Your task to perform on an android device: Go to display settings Image 0: 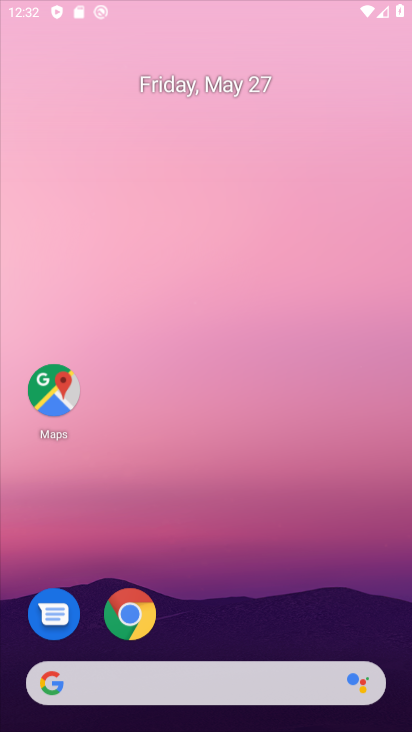
Step 0: press home button
Your task to perform on an android device: Go to display settings Image 1: 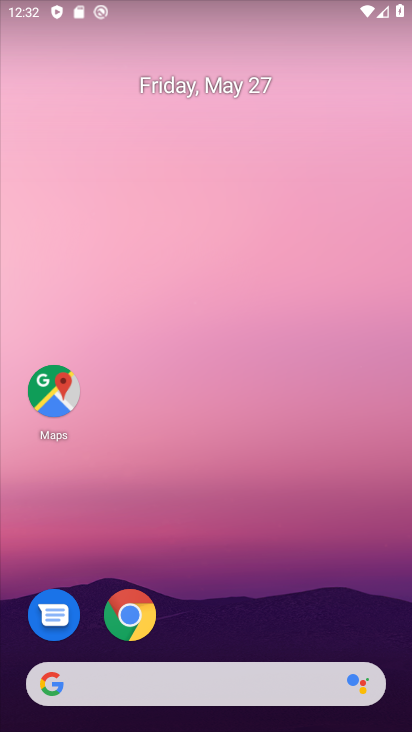
Step 1: drag from (215, 629) to (242, 59)
Your task to perform on an android device: Go to display settings Image 2: 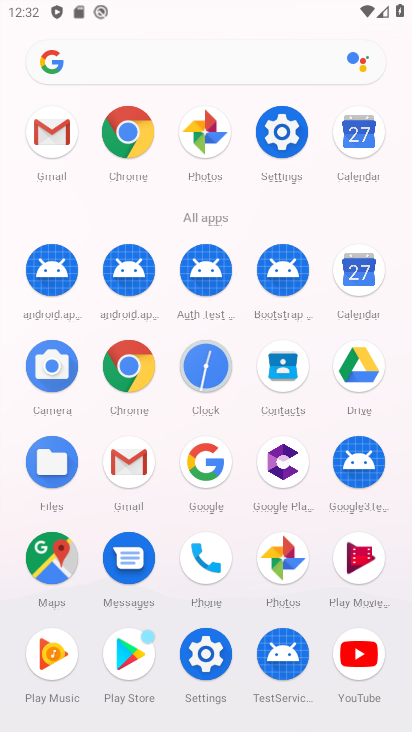
Step 2: click (118, 196)
Your task to perform on an android device: Go to display settings Image 3: 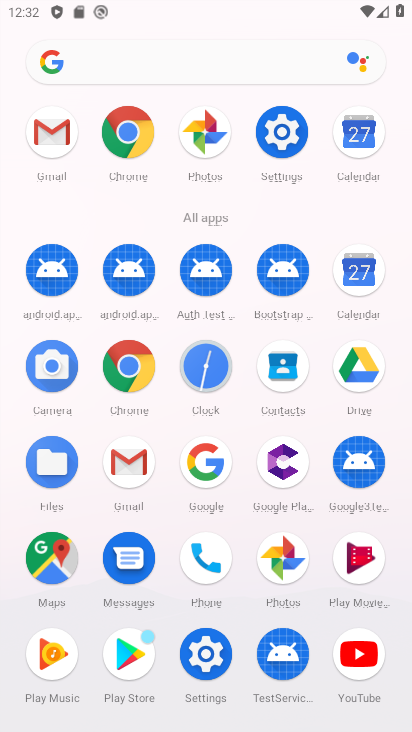
Step 3: click (289, 116)
Your task to perform on an android device: Go to display settings Image 4: 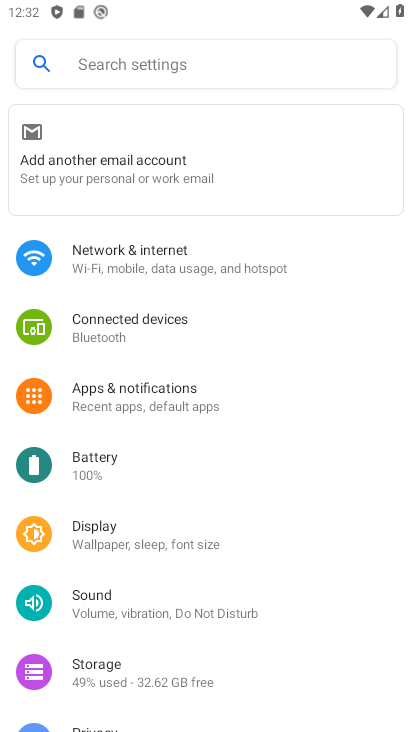
Step 4: click (102, 541)
Your task to perform on an android device: Go to display settings Image 5: 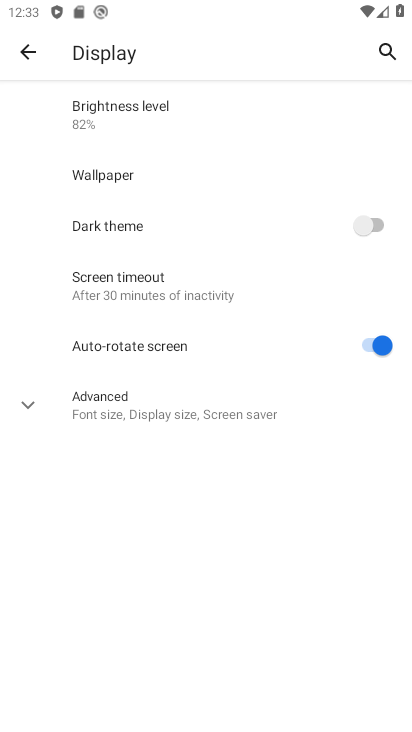
Step 5: task complete